Your task to perform on an android device: allow cookies in the chrome app Image 0: 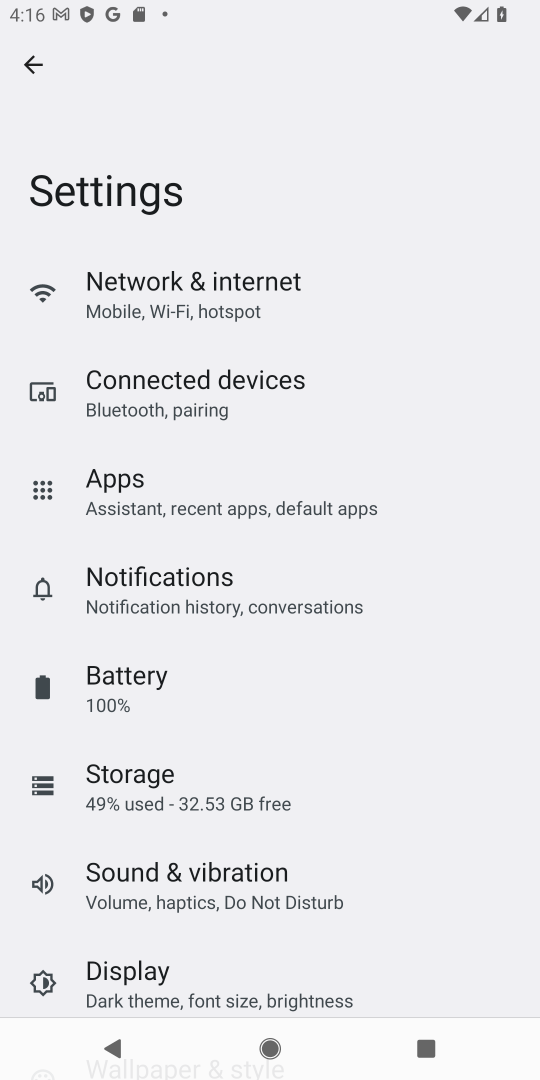
Step 0: press home button
Your task to perform on an android device: allow cookies in the chrome app Image 1: 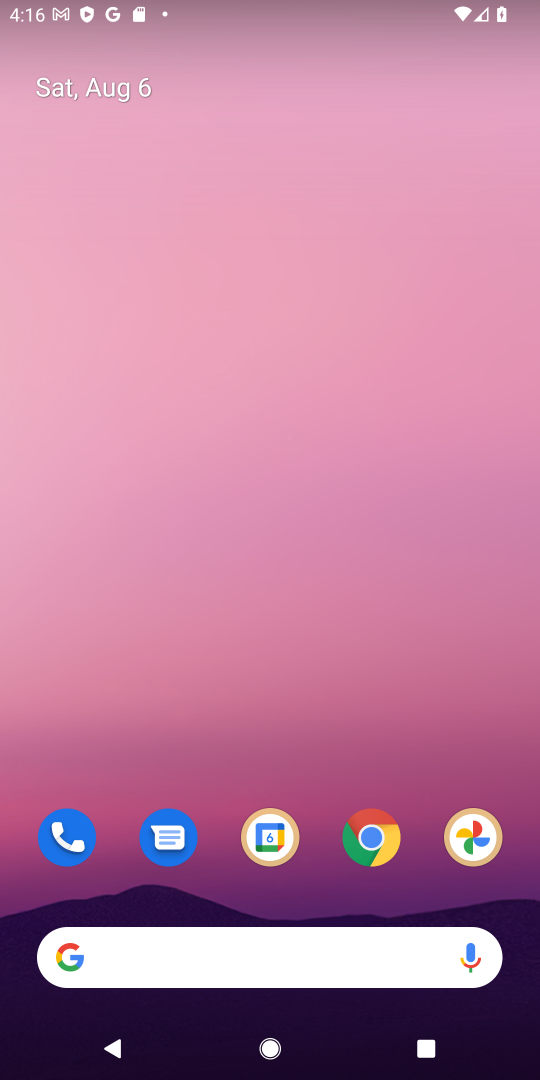
Step 1: click (367, 842)
Your task to perform on an android device: allow cookies in the chrome app Image 2: 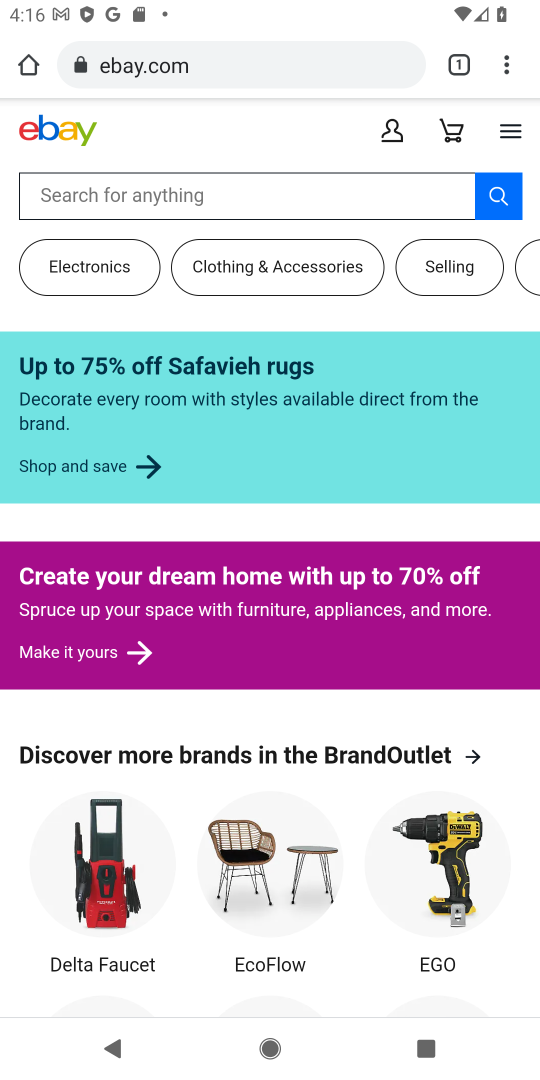
Step 2: click (505, 78)
Your task to perform on an android device: allow cookies in the chrome app Image 3: 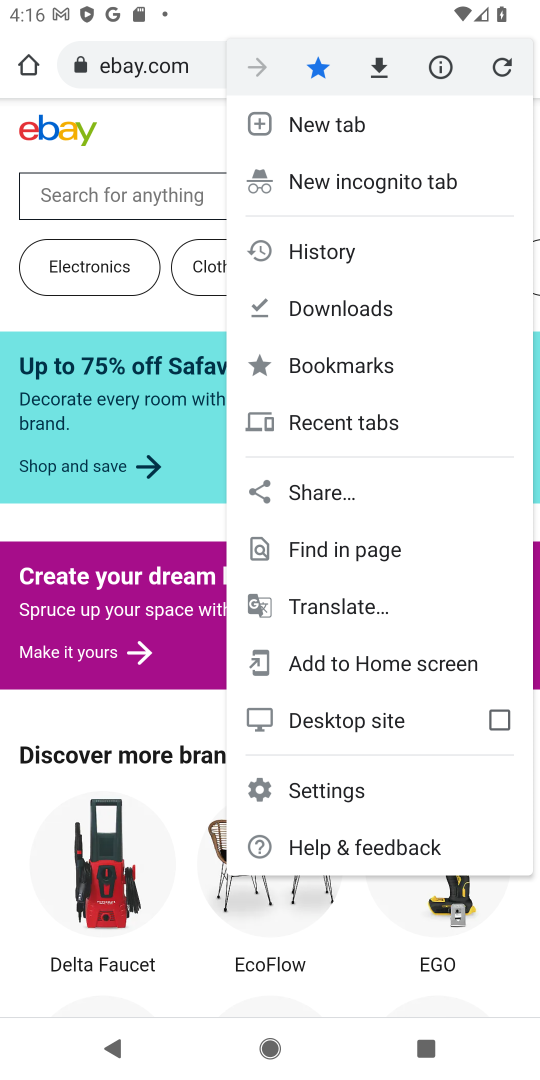
Step 3: click (315, 780)
Your task to perform on an android device: allow cookies in the chrome app Image 4: 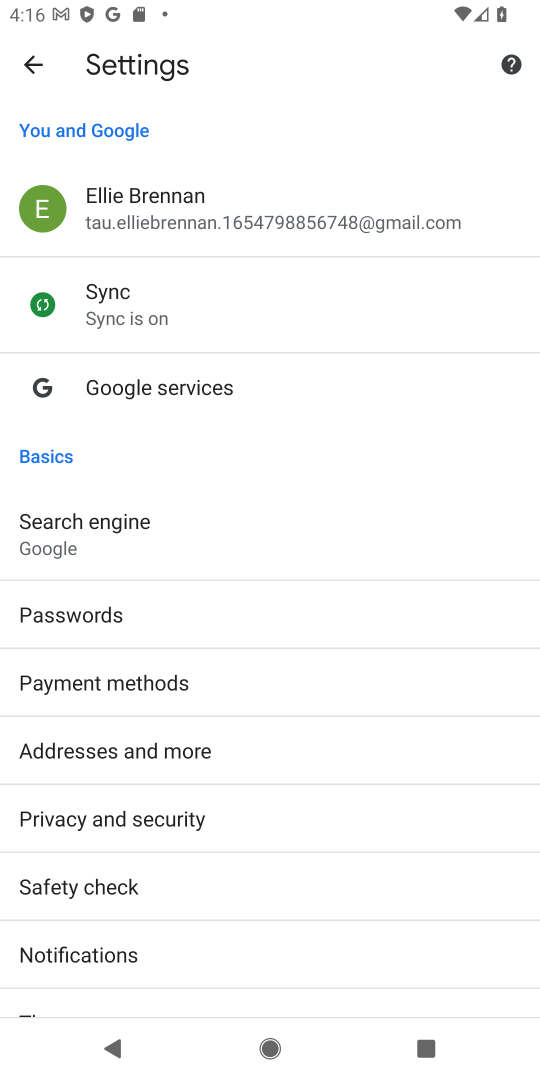
Step 4: drag from (251, 935) to (276, 324)
Your task to perform on an android device: allow cookies in the chrome app Image 5: 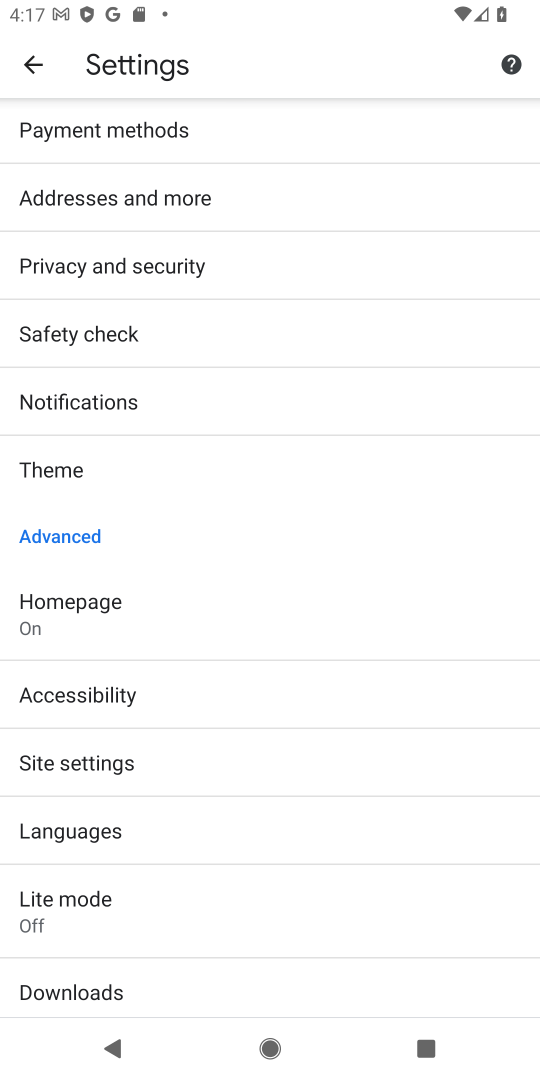
Step 5: click (79, 765)
Your task to perform on an android device: allow cookies in the chrome app Image 6: 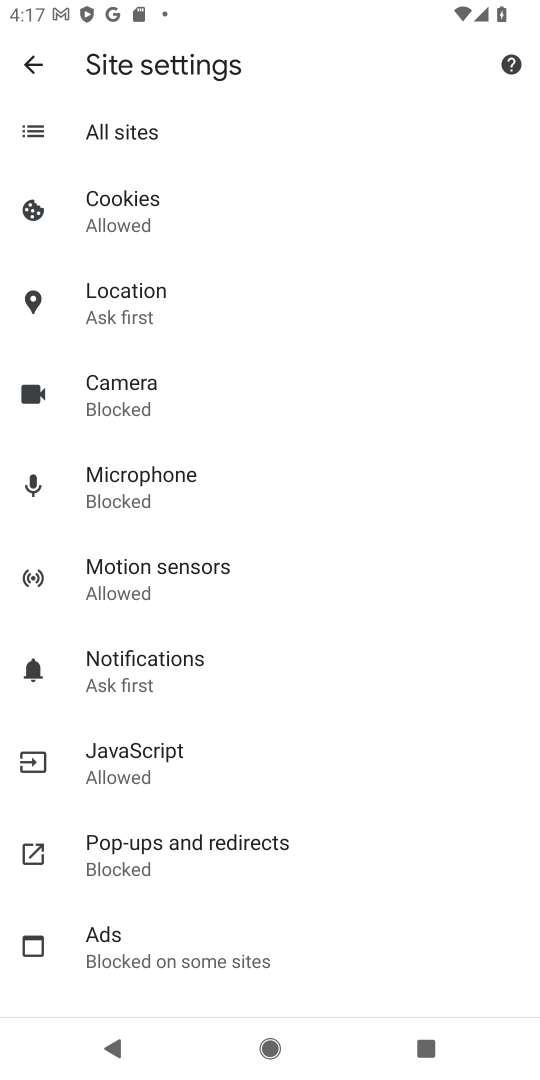
Step 6: click (104, 206)
Your task to perform on an android device: allow cookies in the chrome app Image 7: 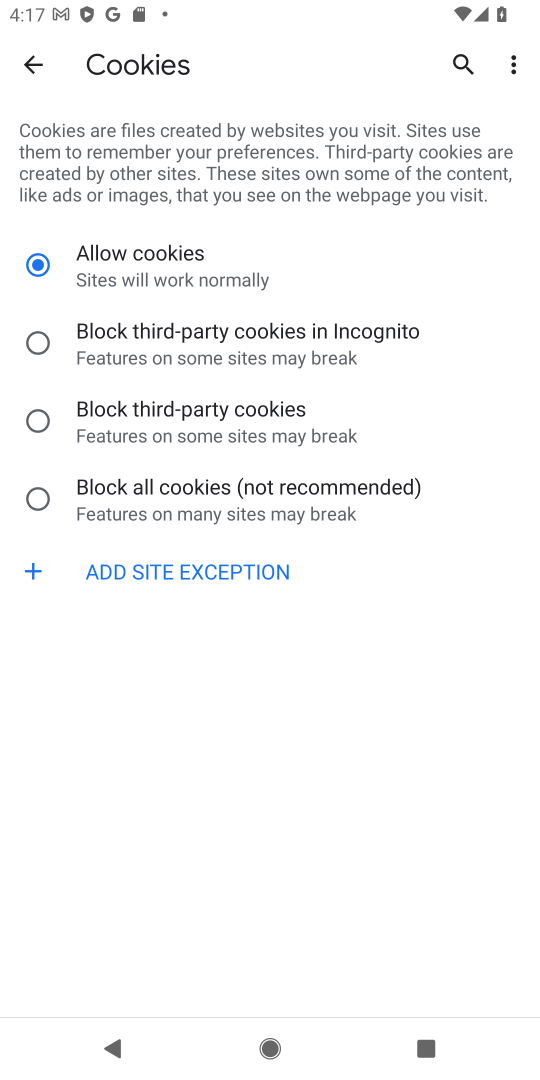
Step 7: task complete